Your task to perform on an android device: find which apps use the phone's location Image 0: 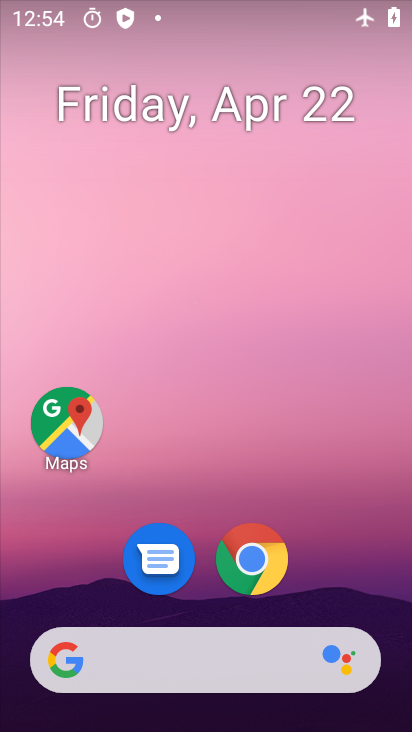
Step 0: drag from (357, 532) to (350, 129)
Your task to perform on an android device: find which apps use the phone's location Image 1: 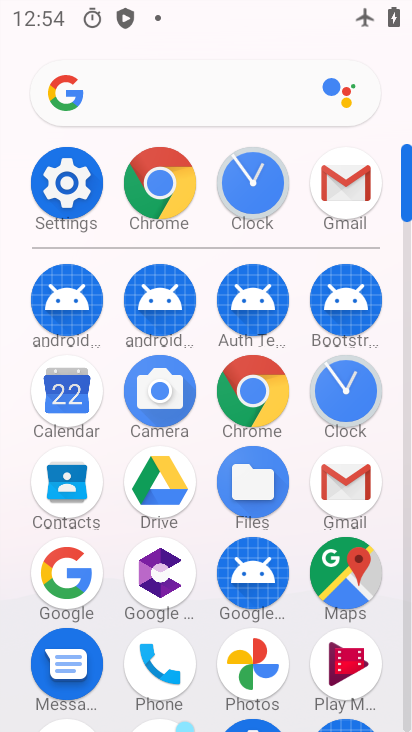
Step 1: click (68, 177)
Your task to perform on an android device: find which apps use the phone's location Image 2: 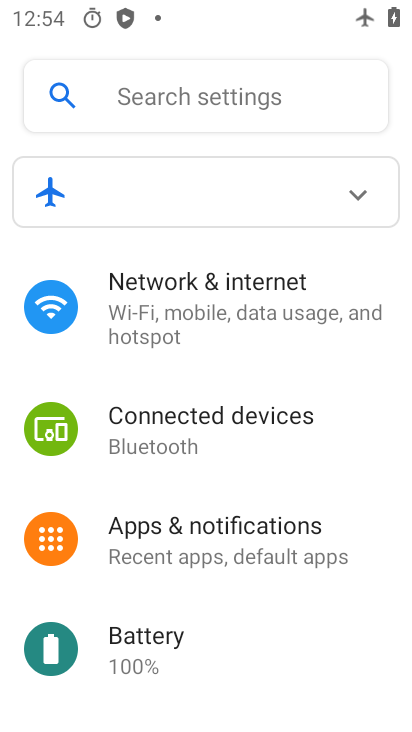
Step 2: drag from (380, 596) to (355, 412)
Your task to perform on an android device: find which apps use the phone's location Image 3: 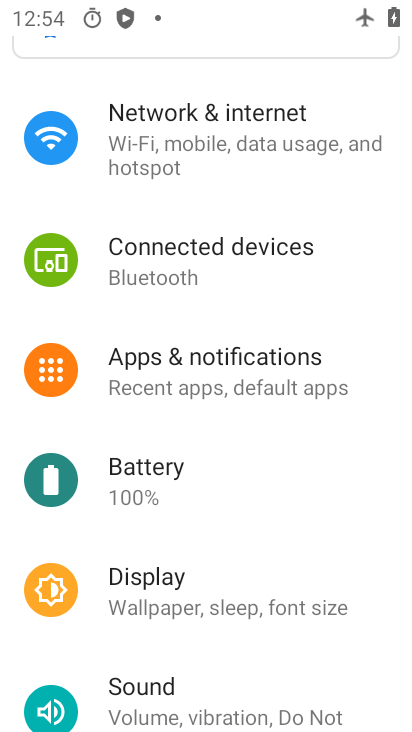
Step 3: drag from (339, 627) to (338, 472)
Your task to perform on an android device: find which apps use the phone's location Image 4: 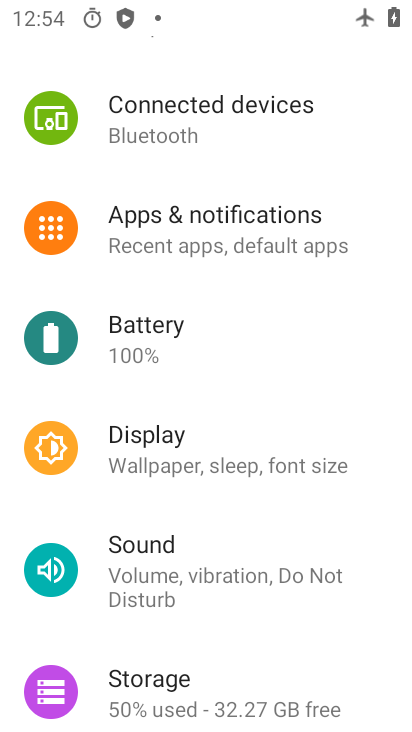
Step 4: drag from (350, 671) to (363, 494)
Your task to perform on an android device: find which apps use the phone's location Image 5: 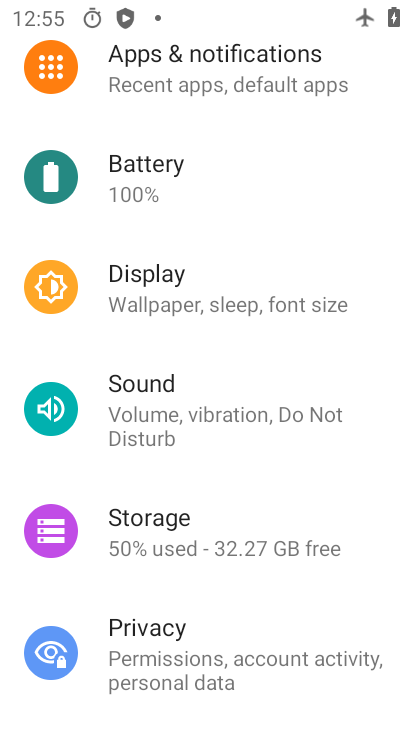
Step 5: drag from (364, 631) to (367, 506)
Your task to perform on an android device: find which apps use the phone's location Image 6: 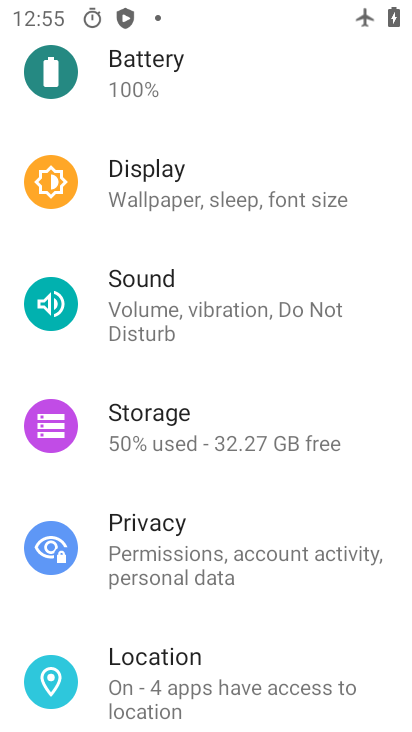
Step 6: drag from (353, 631) to (355, 509)
Your task to perform on an android device: find which apps use the phone's location Image 7: 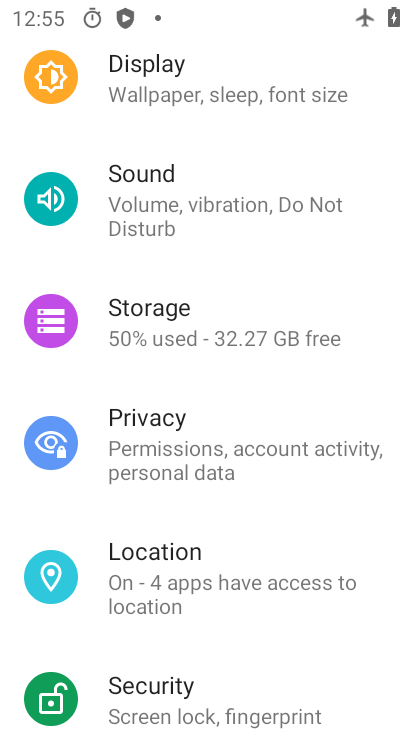
Step 7: drag from (367, 674) to (376, 556)
Your task to perform on an android device: find which apps use the phone's location Image 8: 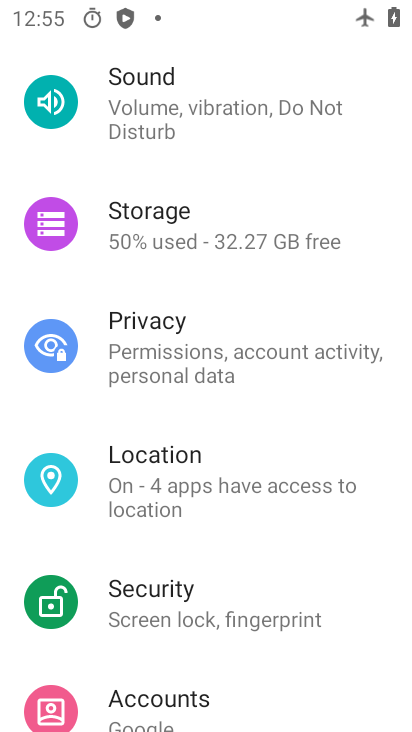
Step 8: click (304, 488)
Your task to perform on an android device: find which apps use the phone's location Image 9: 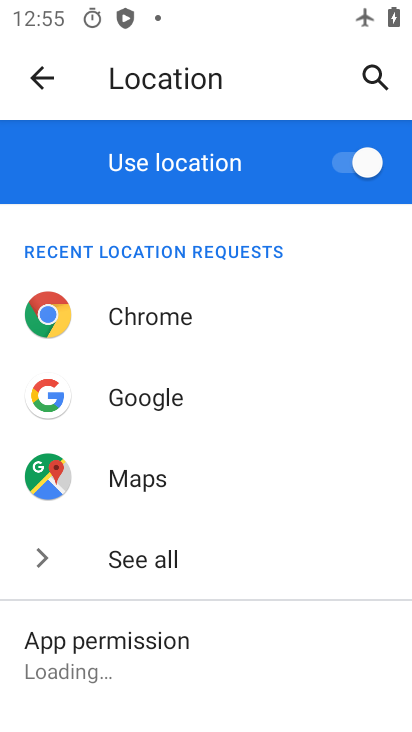
Step 9: drag from (330, 602) to (342, 388)
Your task to perform on an android device: find which apps use the phone's location Image 10: 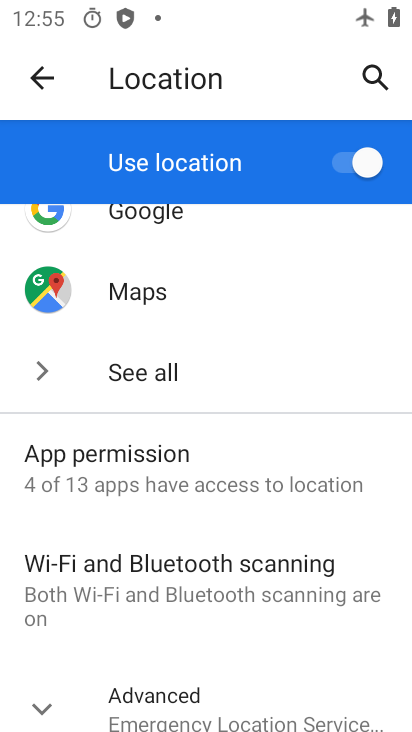
Step 10: drag from (336, 651) to (341, 475)
Your task to perform on an android device: find which apps use the phone's location Image 11: 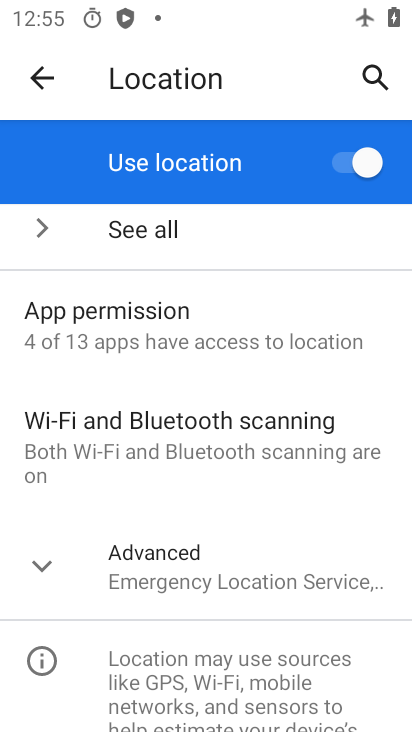
Step 11: drag from (321, 615) to (332, 502)
Your task to perform on an android device: find which apps use the phone's location Image 12: 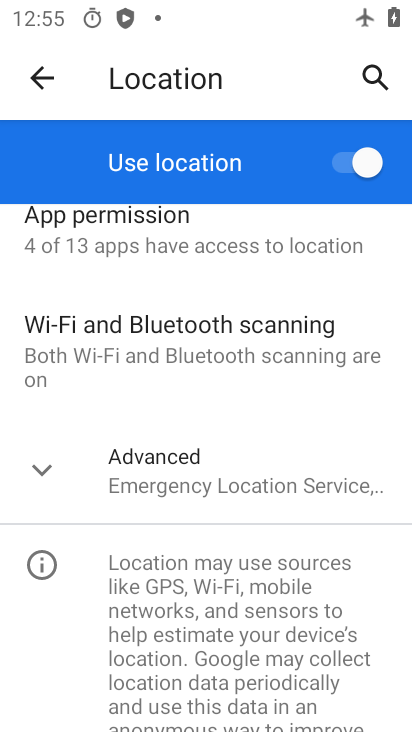
Step 12: drag from (351, 275) to (307, 564)
Your task to perform on an android device: find which apps use the phone's location Image 13: 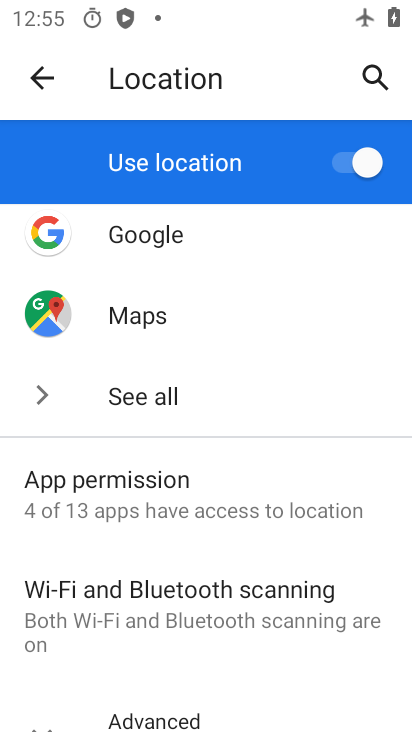
Step 13: click (240, 492)
Your task to perform on an android device: find which apps use the phone's location Image 14: 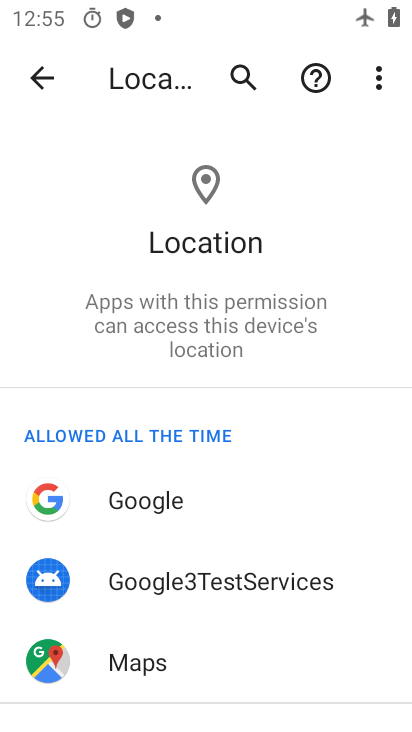
Step 14: drag from (317, 655) to (351, 446)
Your task to perform on an android device: find which apps use the phone's location Image 15: 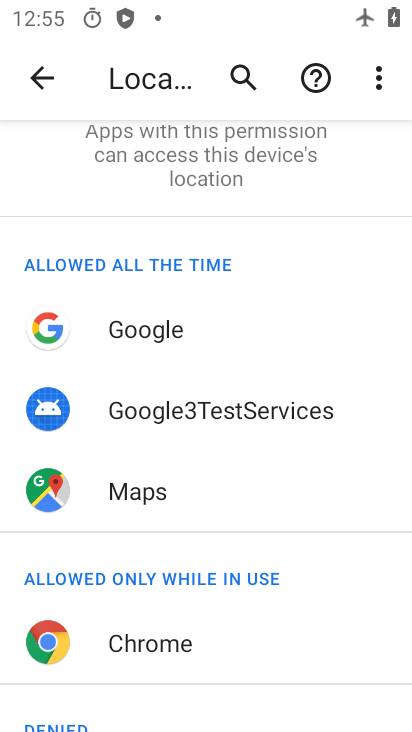
Step 15: drag from (345, 644) to (351, 400)
Your task to perform on an android device: find which apps use the phone's location Image 16: 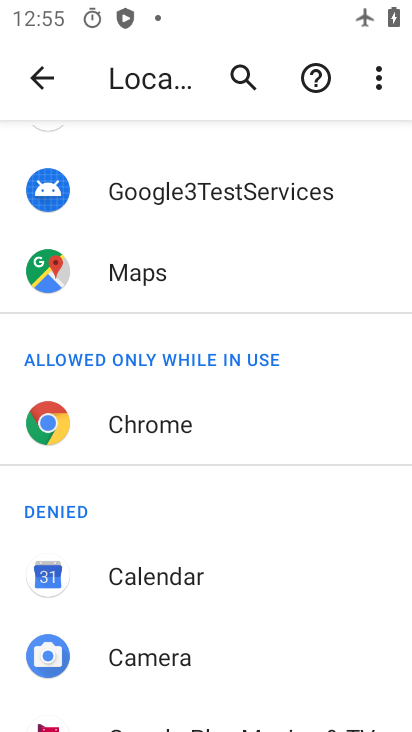
Step 16: drag from (299, 645) to (316, 492)
Your task to perform on an android device: find which apps use the phone's location Image 17: 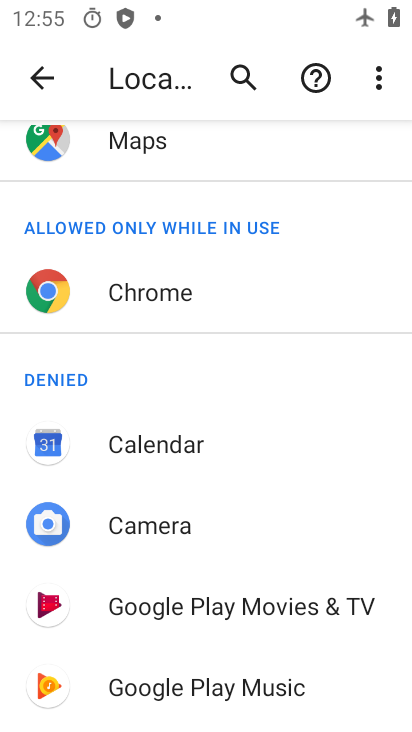
Step 17: drag from (318, 658) to (333, 503)
Your task to perform on an android device: find which apps use the phone's location Image 18: 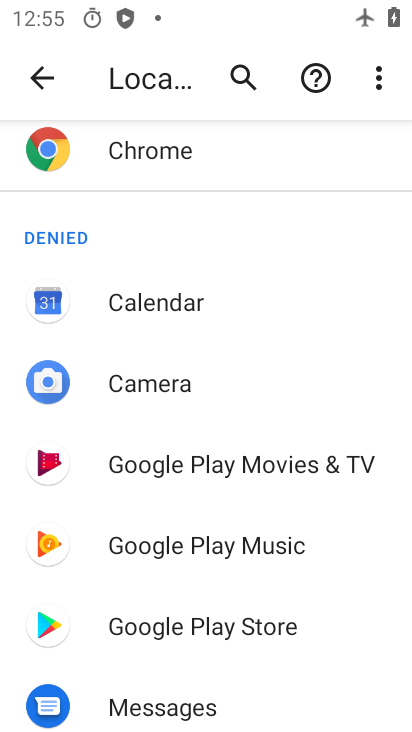
Step 18: drag from (363, 671) to (368, 501)
Your task to perform on an android device: find which apps use the phone's location Image 19: 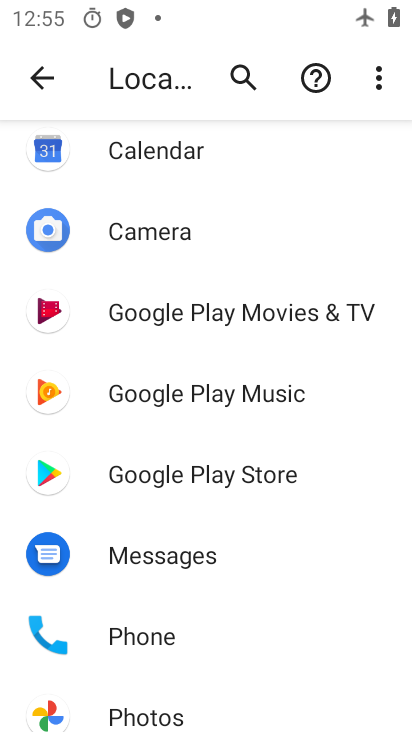
Step 19: drag from (348, 669) to (349, 526)
Your task to perform on an android device: find which apps use the phone's location Image 20: 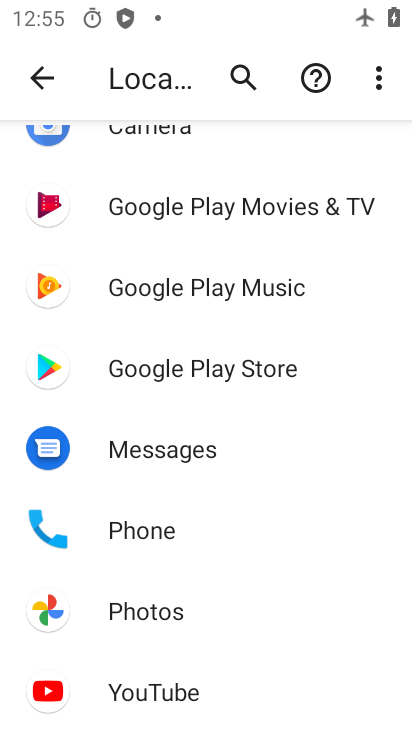
Step 20: click (175, 620)
Your task to perform on an android device: find which apps use the phone's location Image 21: 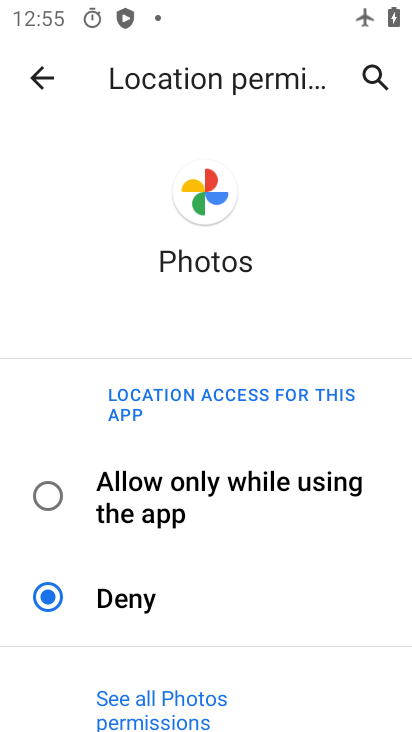
Step 21: click (195, 497)
Your task to perform on an android device: find which apps use the phone's location Image 22: 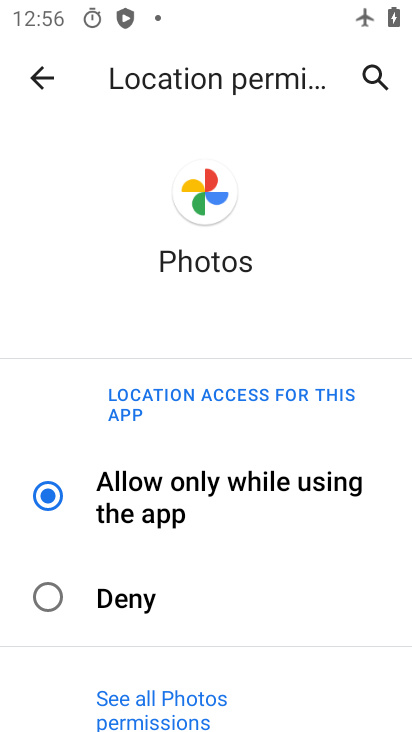
Step 22: task complete